Your task to perform on an android device: remove spam from my inbox in the gmail app Image 0: 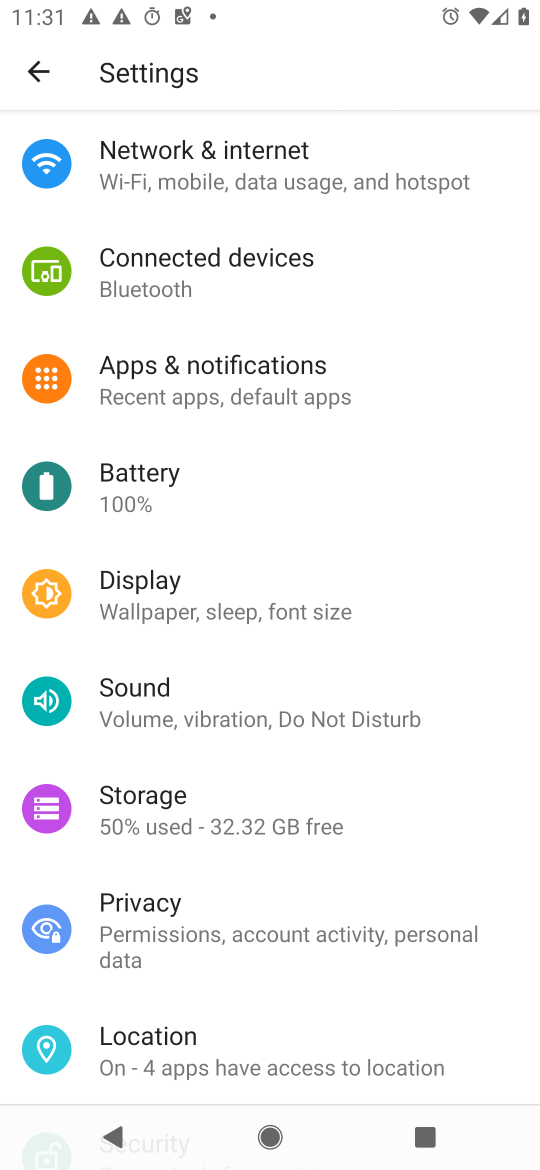
Step 0: press home button
Your task to perform on an android device: remove spam from my inbox in the gmail app Image 1: 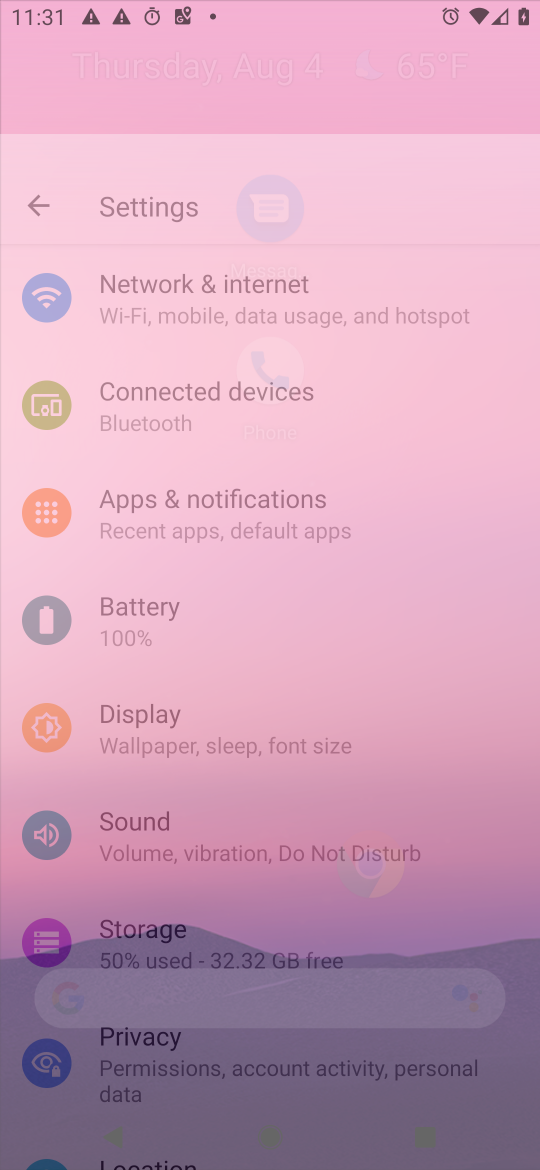
Step 1: click (271, 236)
Your task to perform on an android device: remove spam from my inbox in the gmail app Image 2: 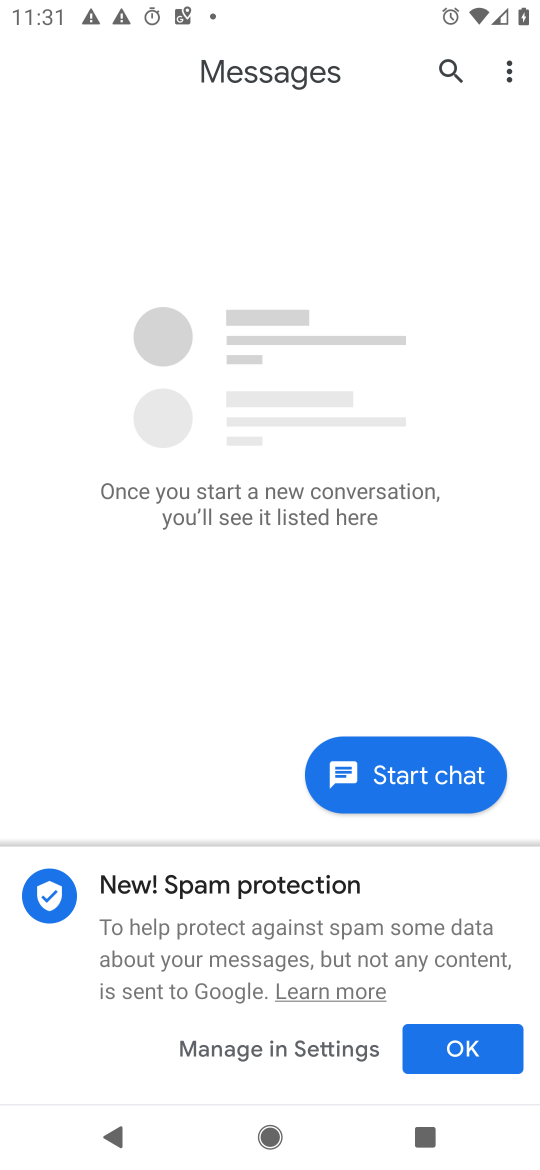
Step 2: press home button
Your task to perform on an android device: remove spam from my inbox in the gmail app Image 3: 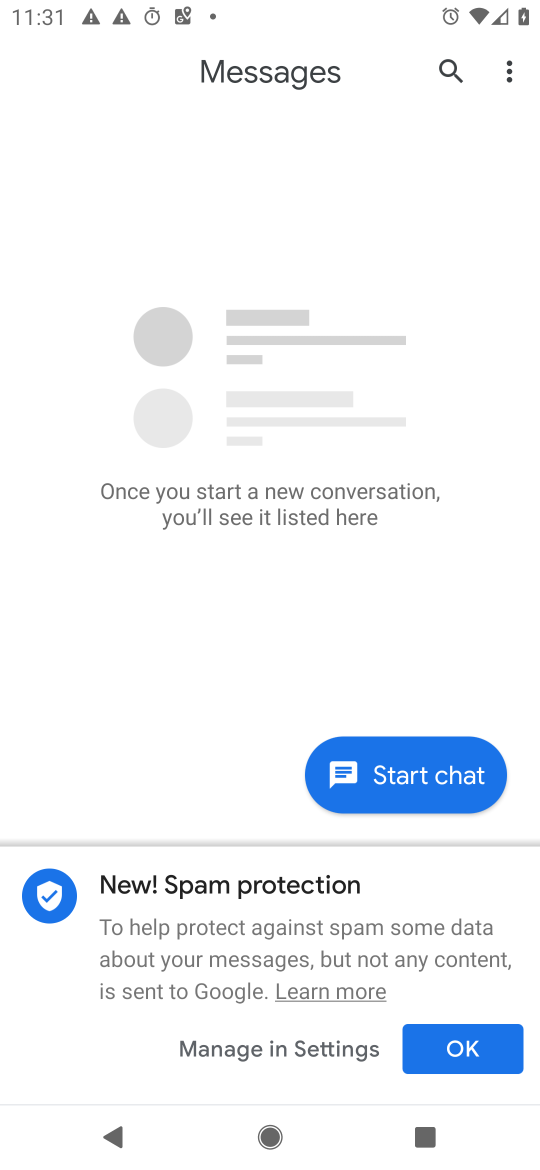
Step 3: drag from (242, 943) to (349, 317)
Your task to perform on an android device: remove spam from my inbox in the gmail app Image 4: 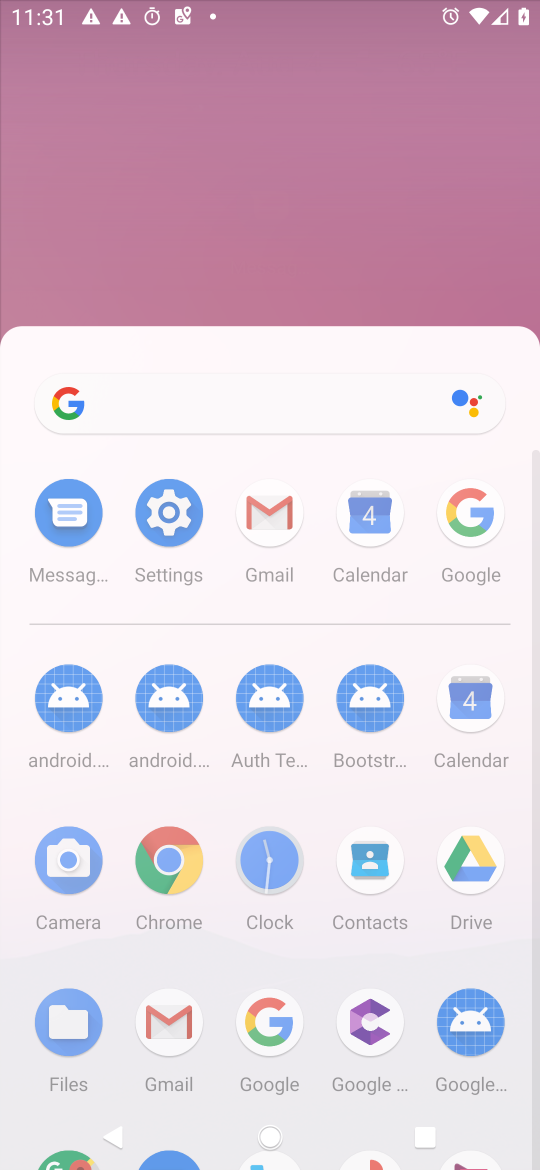
Step 4: drag from (230, 798) to (318, 285)
Your task to perform on an android device: remove spam from my inbox in the gmail app Image 5: 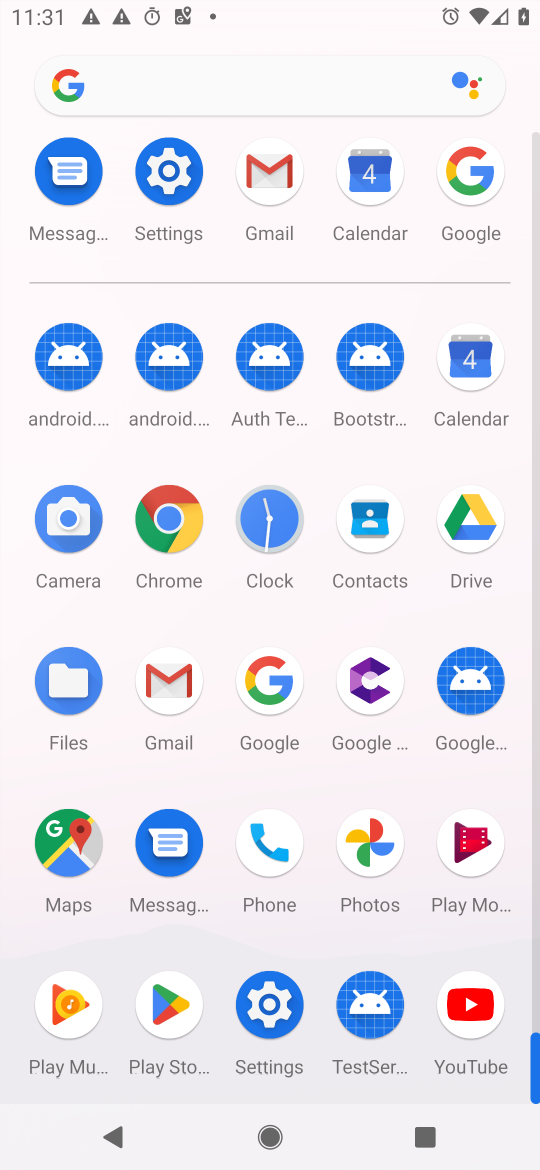
Step 5: click (151, 667)
Your task to perform on an android device: remove spam from my inbox in the gmail app Image 6: 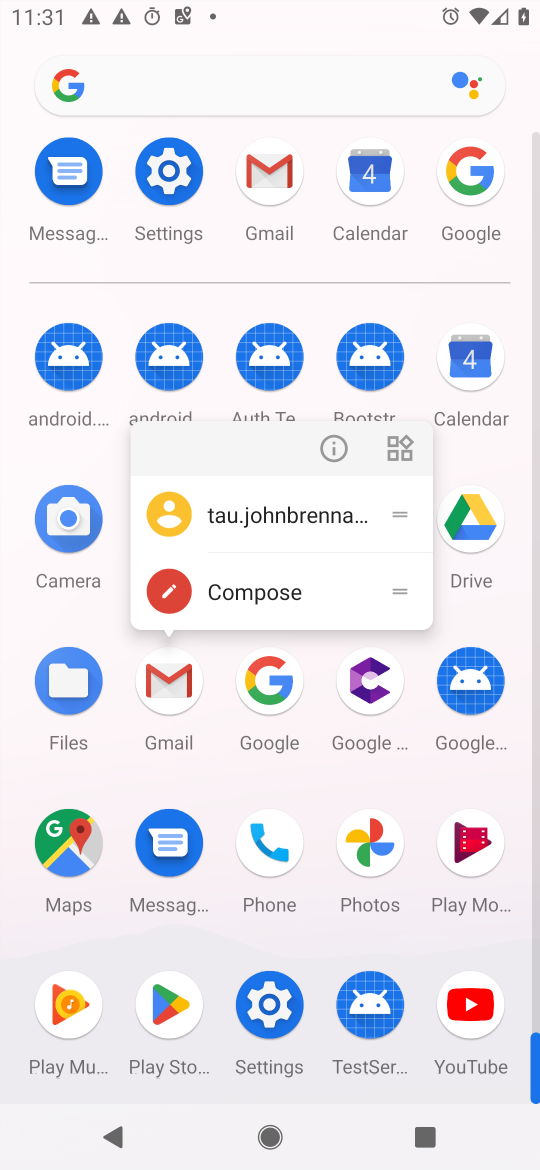
Step 6: click (336, 427)
Your task to perform on an android device: remove spam from my inbox in the gmail app Image 7: 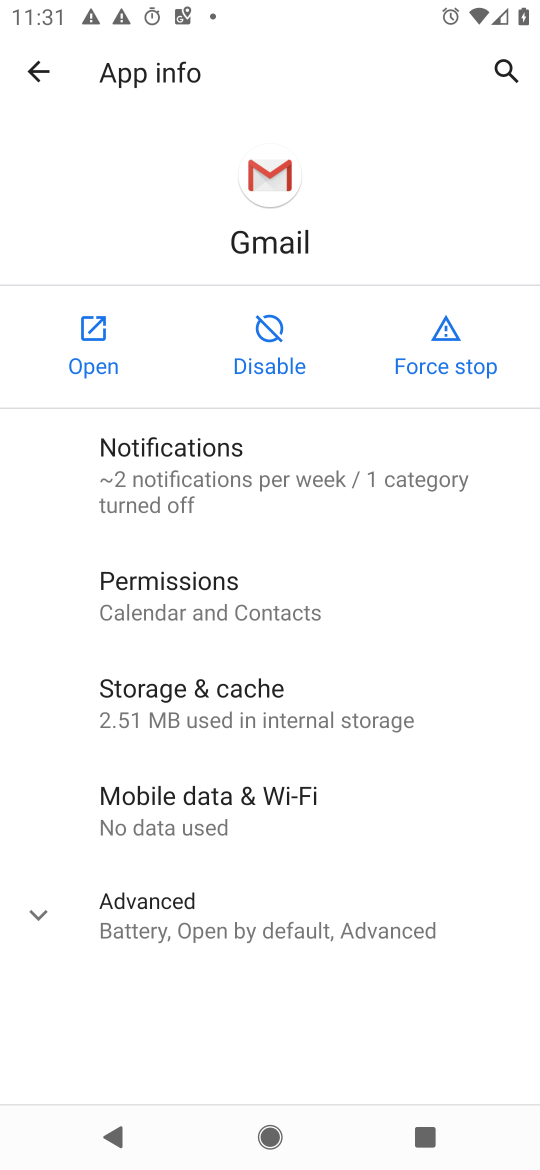
Step 7: click (96, 402)
Your task to perform on an android device: remove spam from my inbox in the gmail app Image 8: 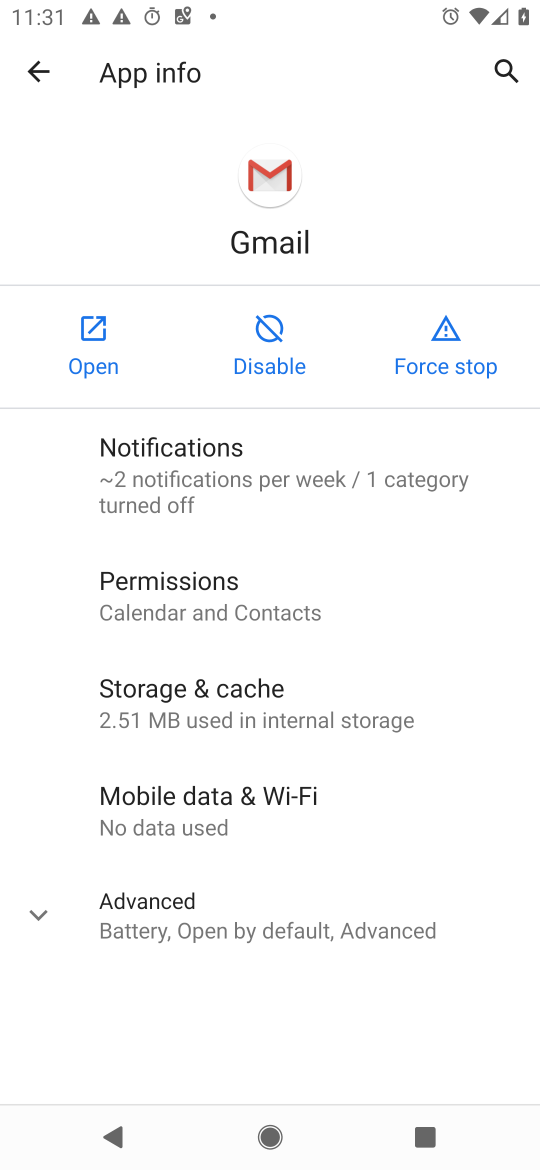
Step 8: click (82, 361)
Your task to perform on an android device: remove spam from my inbox in the gmail app Image 9: 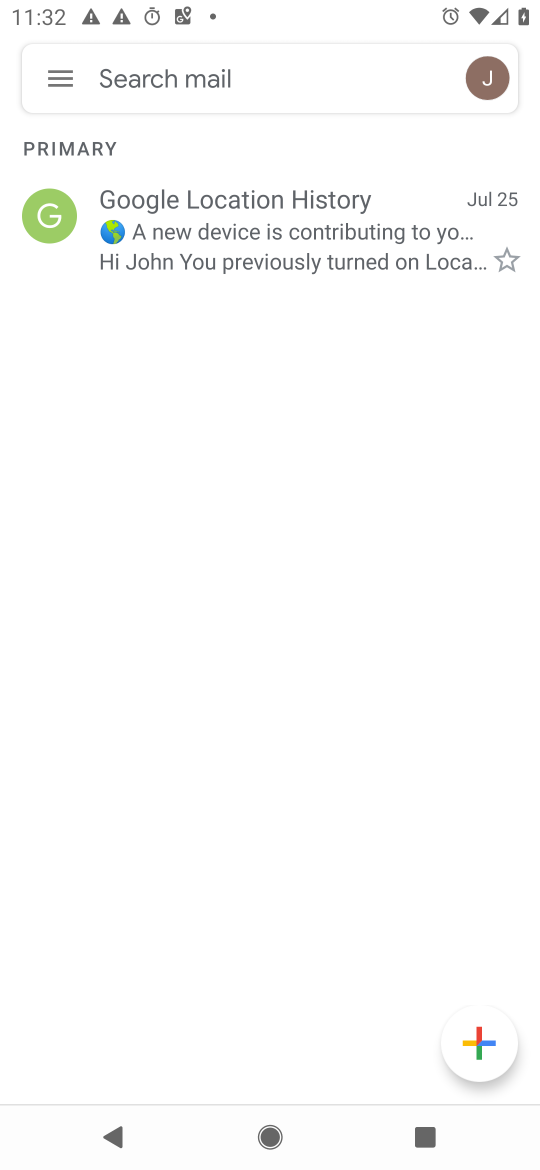
Step 9: click (56, 75)
Your task to perform on an android device: remove spam from my inbox in the gmail app Image 10: 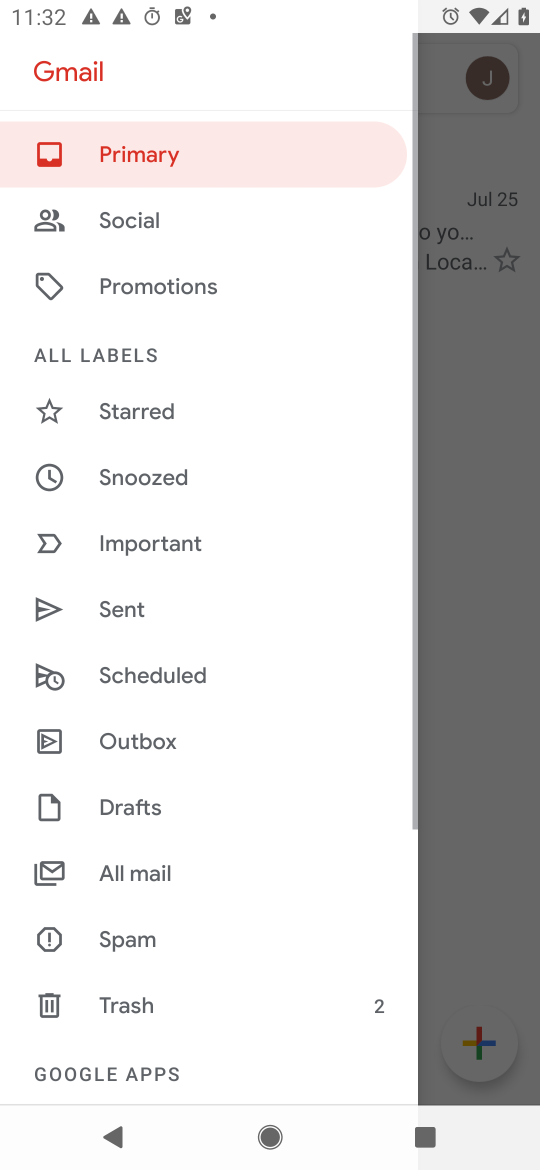
Step 10: drag from (177, 794) to (258, 244)
Your task to perform on an android device: remove spam from my inbox in the gmail app Image 11: 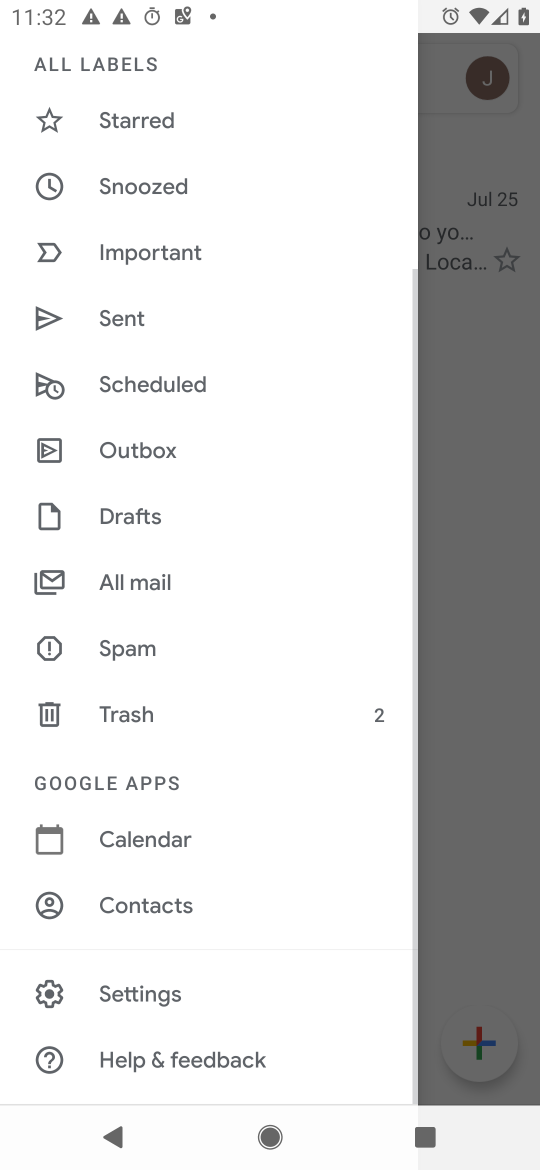
Step 11: click (115, 649)
Your task to perform on an android device: remove spam from my inbox in the gmail app Image 12: 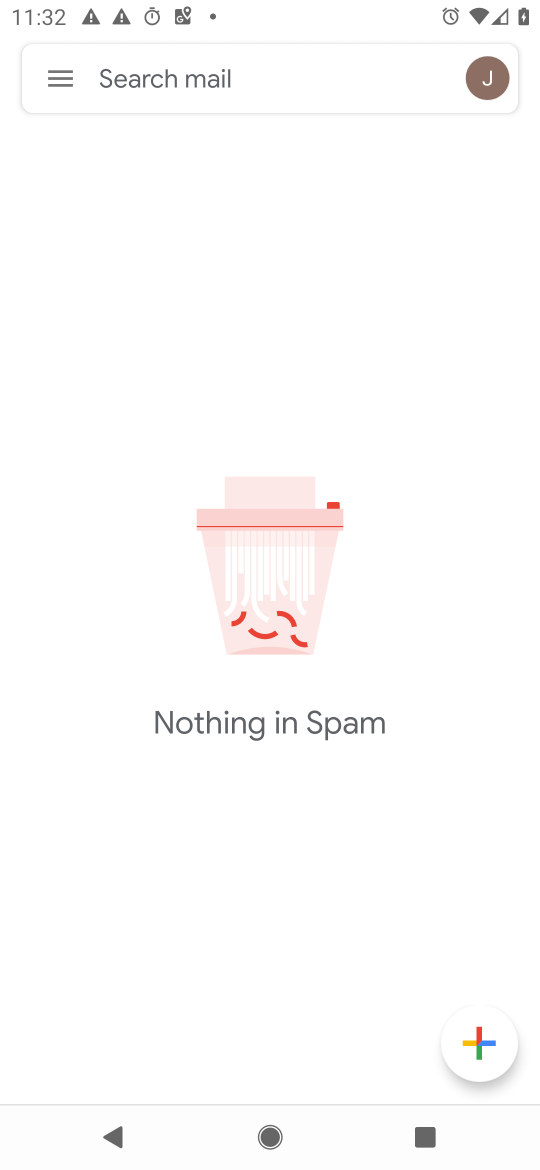
Step 12: task complete